Your task to perform on an android device: Go to settings Image 0: 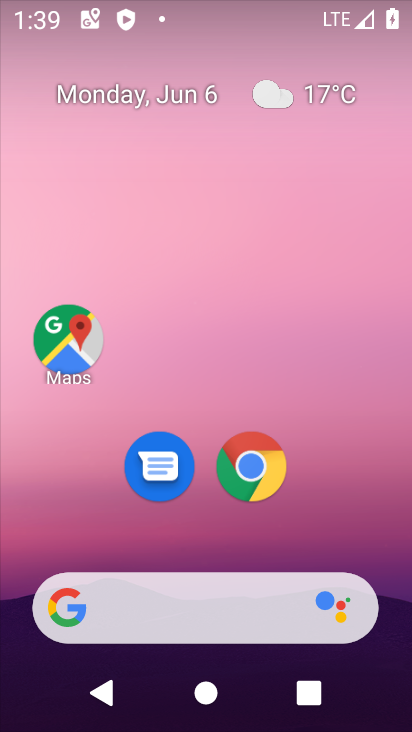
Step 0: press home button
Your task to perform on an android device: Go to settings Image 1: 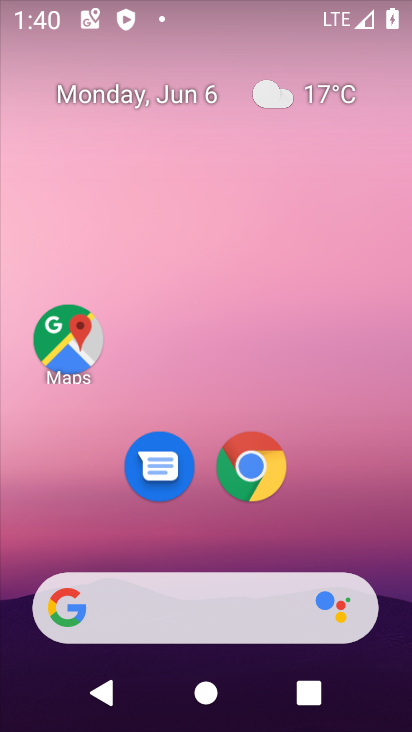
Step 1: drag from (210, 541) to (180, 78)
Your task to perform on an android device: Go to settings Image 2: 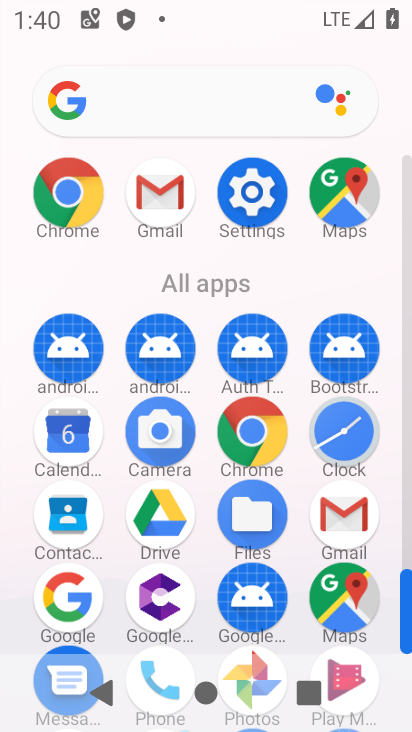
Step 2: click (254, 193)
Your task to perform on an android device: Go to settings Image 3: 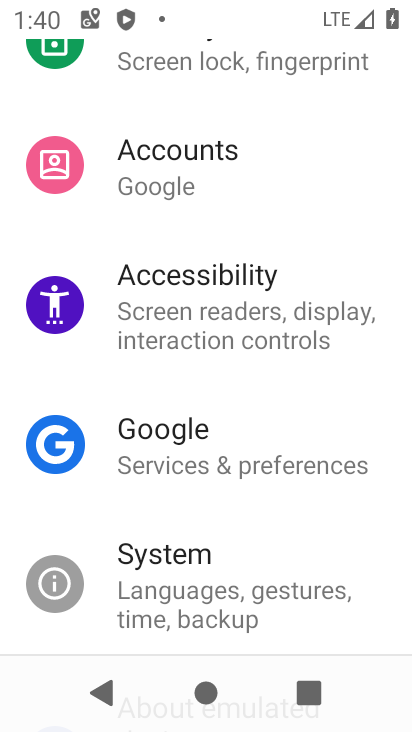
Step 3: task complete